Your task to perform on an android device: What's on my calendar tomorrow? Image 0: 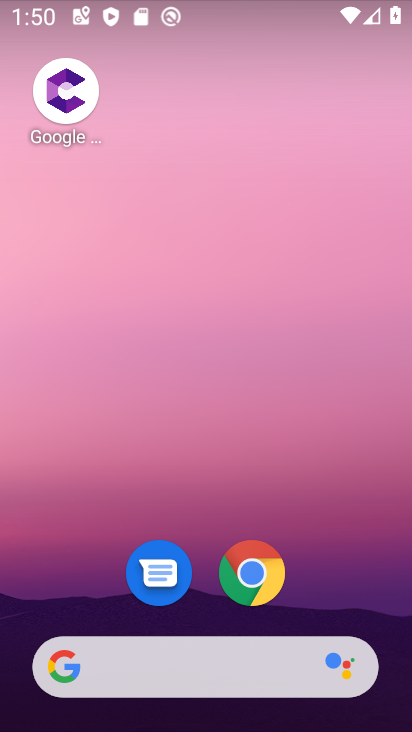
Step 0: drag from (214, 555) to (214, 142)
Your task to perform on an android device: What's on my calendar tomorrow? Image 1: 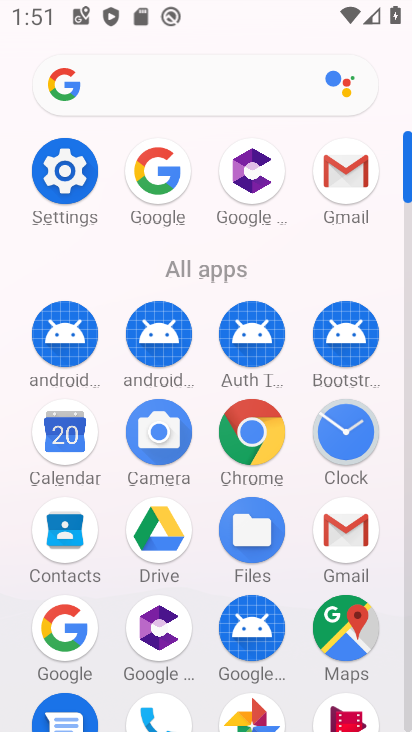
Step 1: drag from (202, 484) to (210, 329)
Your task to perform on an android device: What's on my calendar tomorrow? Image 2: 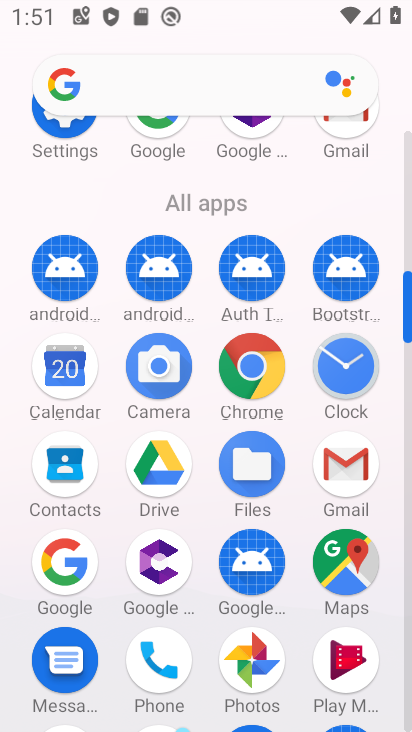
Step 2: click (59, 371)
Your task to perform on an android device: What's on my calendar tomorrow? Image 3: 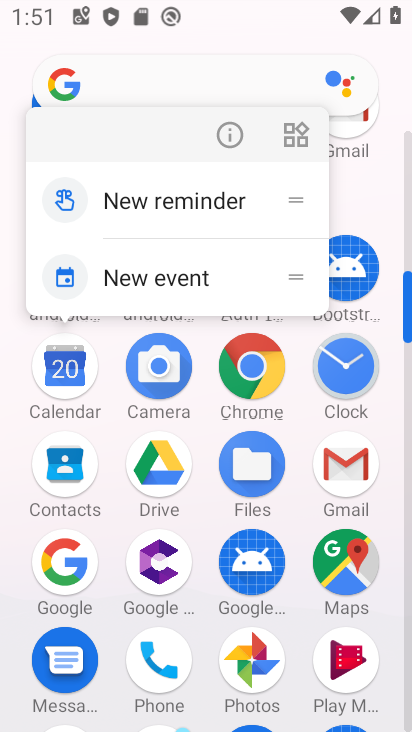
Step 3: click (67, 367)
Your task to perform on an android device: What's on my calendar tomorrow? Image 4: 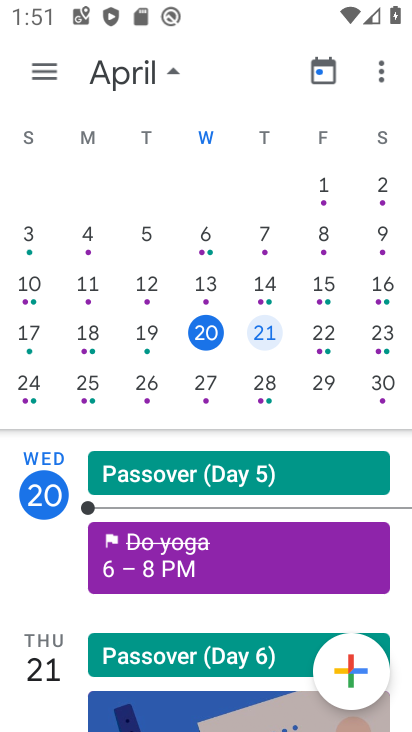
Step 4: click (262, 329)
Your task to perform on an android device: What's on my calendar tomorrow? Image 5: 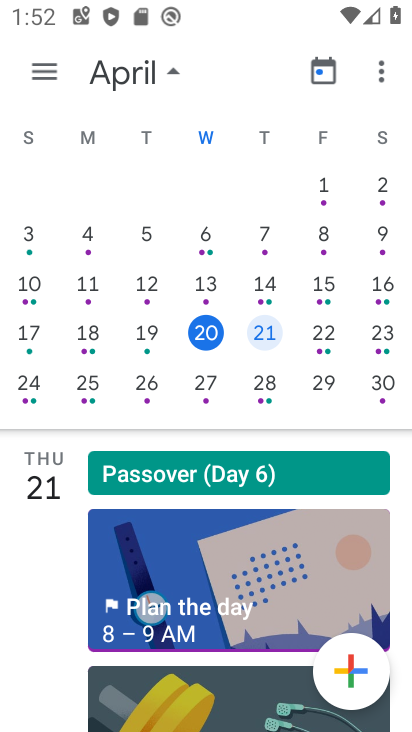
Step 5: task complete